Your task to perform on an android device: Go to Android settings Image 0: 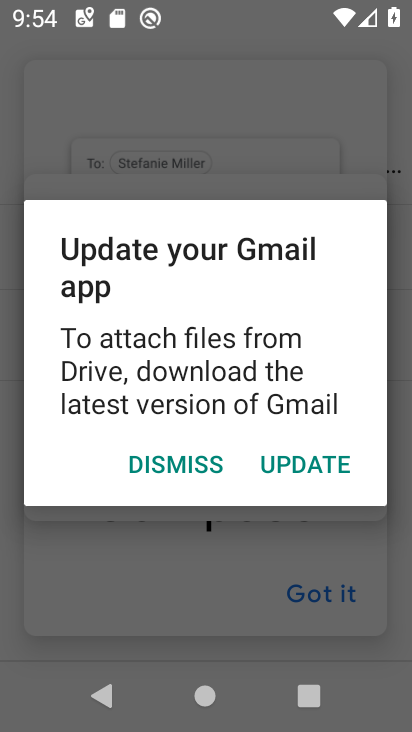
Step 0: press home button
Your task to perform on an android device: Go to Android settings Image 1: 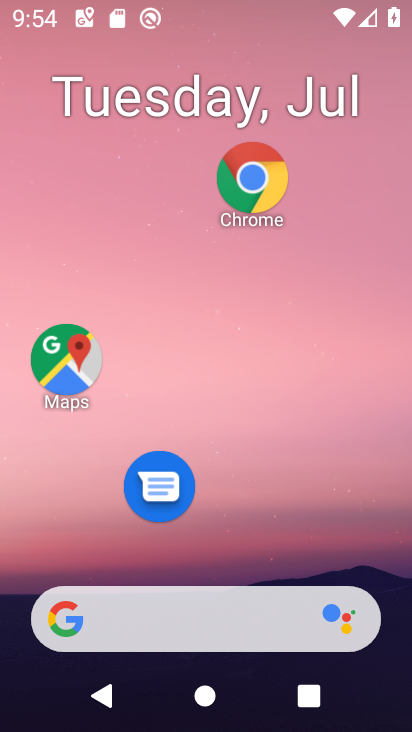
Step 1: drag from (220, 669) to (272, 196)
Your task to perform on an android device: Go to Android settings Image 2: 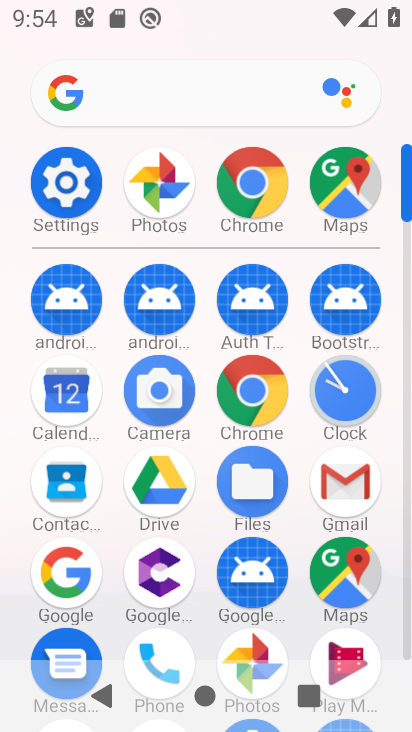
Step 2: click (60, 206)
Your task to perform on an android device: Go to Android settings Image 3: 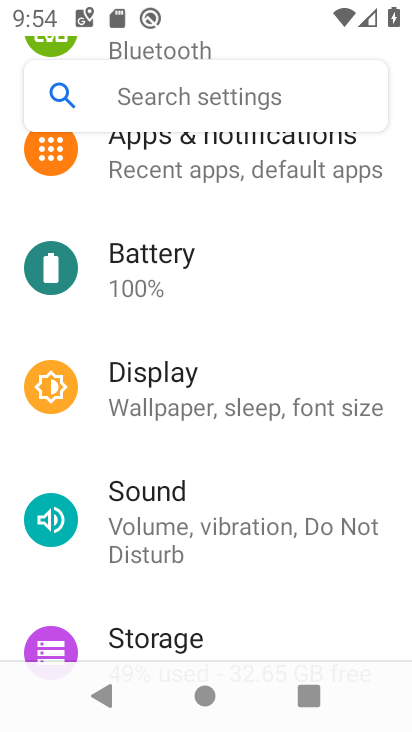
Step 3: drag from (234, 547) to (285, 195)
Your task to perform on an android device: Go to Android settings Image 4: 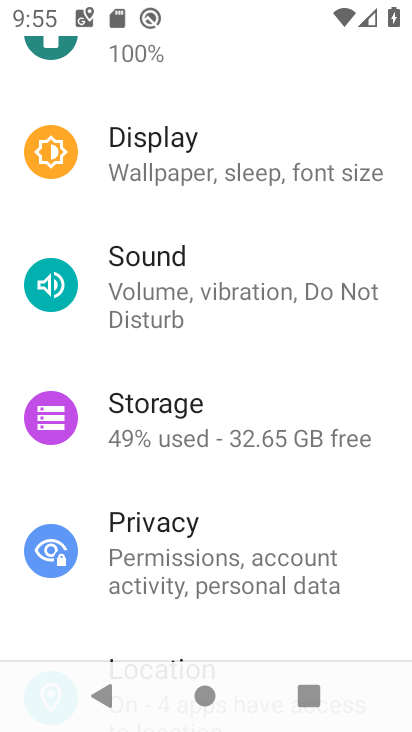
Step 4: drag from (225, 567) to (246, 173)
Your task to perform on an android device: Go to Android settings Image 5: 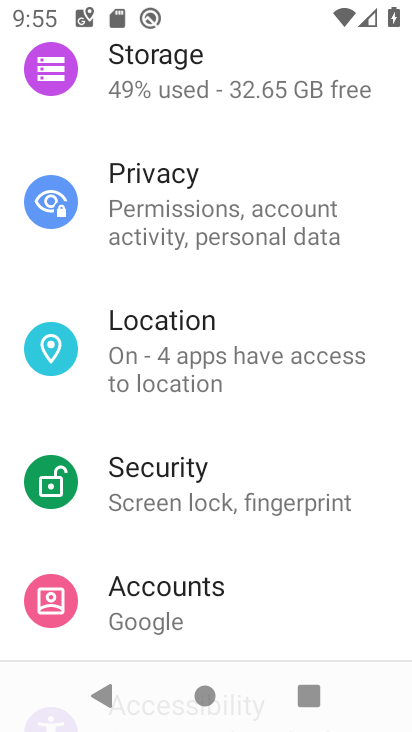
Step 5: drag from (196, 562) to (256, 183)
Your task to perform on an android device: Go to Android settings Image 6: 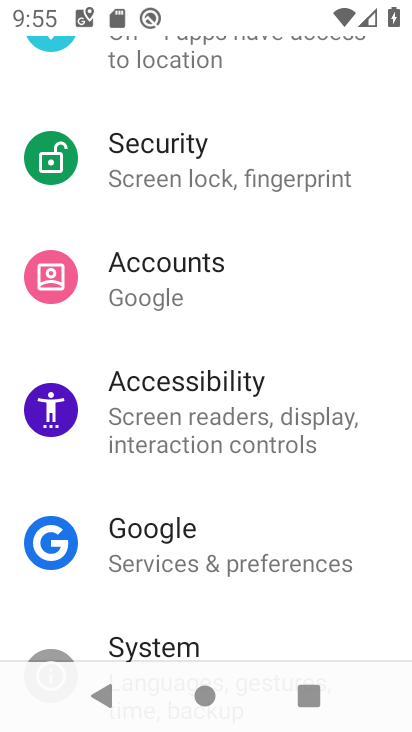
Step 6: drag from (188, 480) to (254, 130)
Your task to perform on an android device: Go to Android settings Image 7: 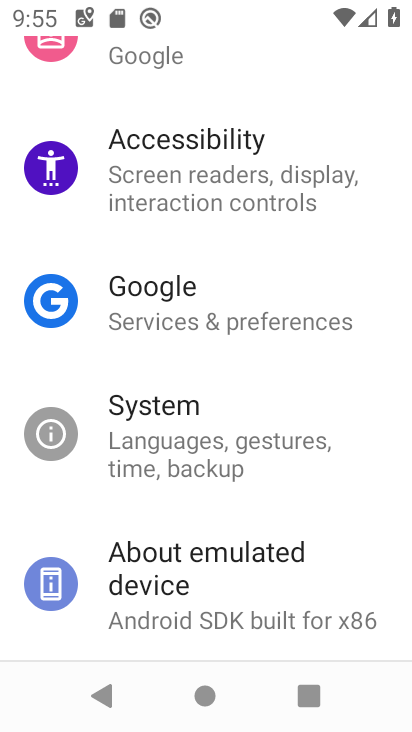
Step 7: drag from (217, 523) to (261, 196)
Your task to perform on an android device: Go to Android settings Image 8: 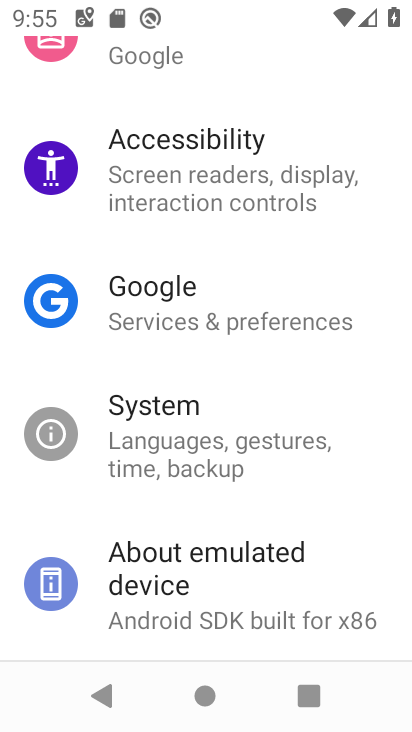
Step 8: click (228, 593)
Your task to perform on an android device: Go to Android settings Image 9: 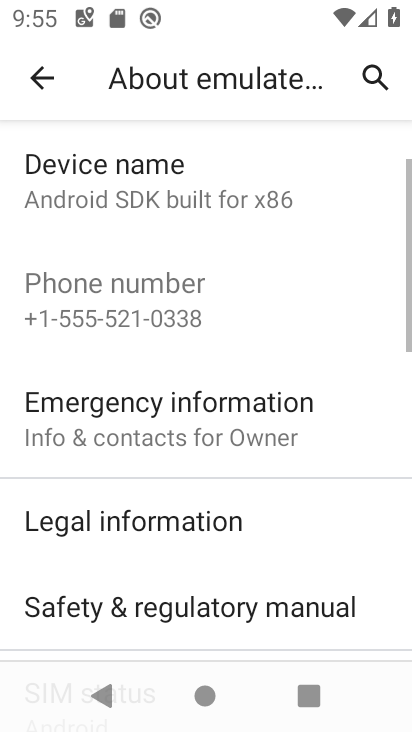
Step 9: drag from (171, 570) to (220, 168)
Your task to perform on an android device: Go to Android settings Image 10: 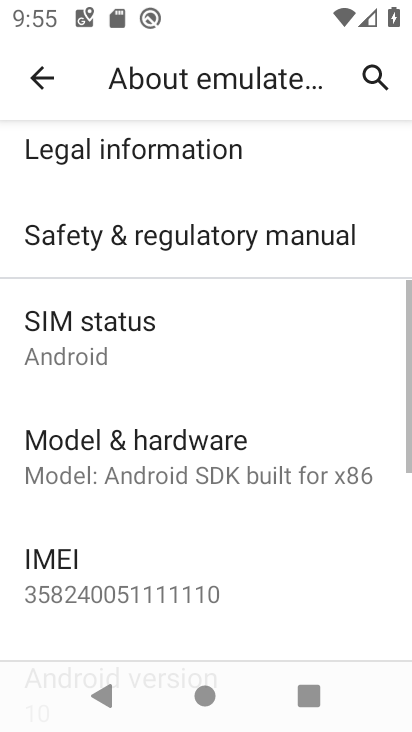
Step 10: drag from (188, 524) to (248, 121)
Your task to perform on an android device: Go to Android settings Image 11: 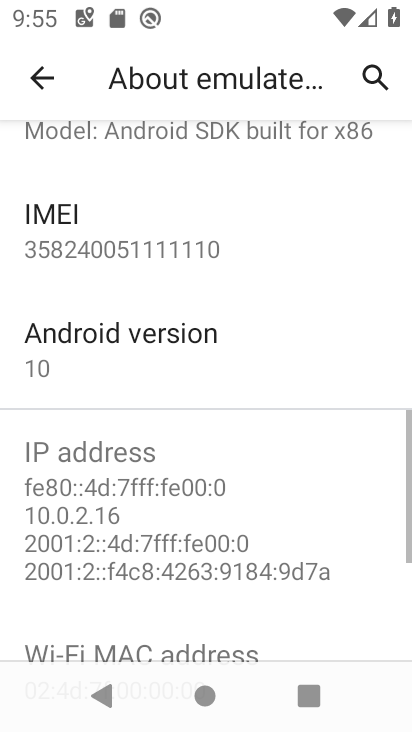
Step 11: click (163, 347)
Your task to perform on an android device: Go to Android settings Image 12: 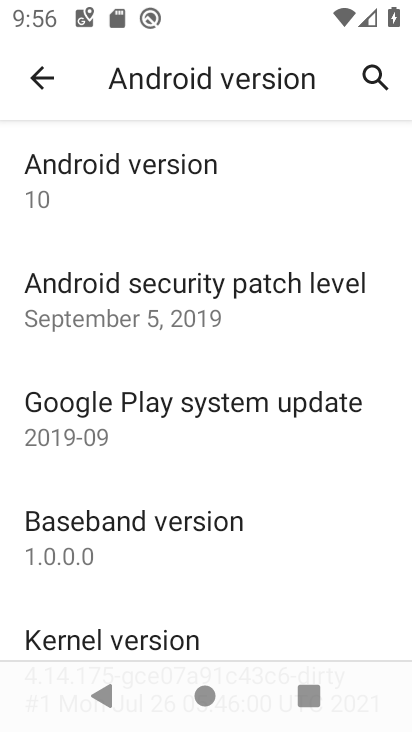
Step 12: click (170, 156)
Your task to perform on an android device: Go to Android settings Image 13: 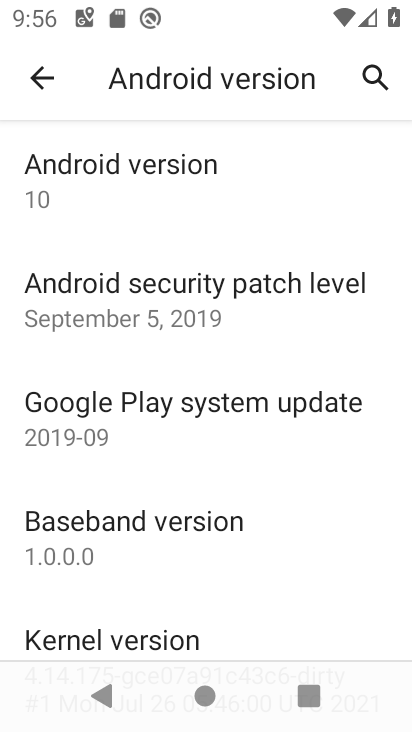
Step 13: click (191, 192)
Your task to perform on an android device: Go to Android settings Image 14: 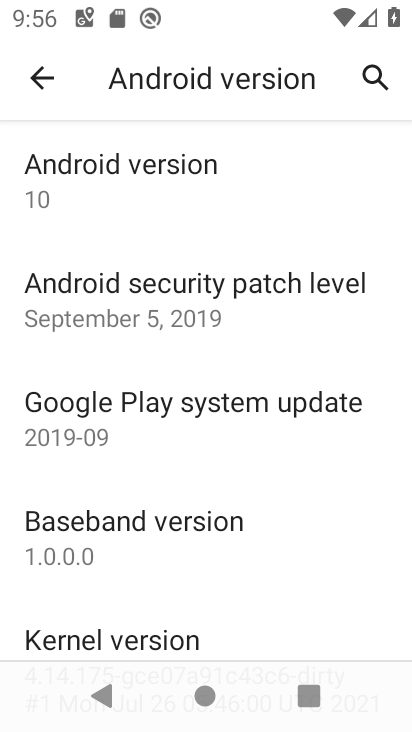
Step 14: task complete